Your task to perform on an android device: delete browsing data in the chrome app Image 0: 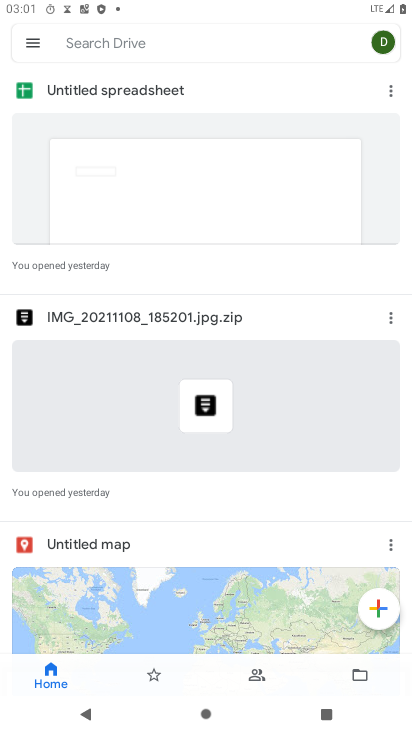
Step 0: press home button
Your task to perform on an android device: delete browsing data in the chrome app Image 1: 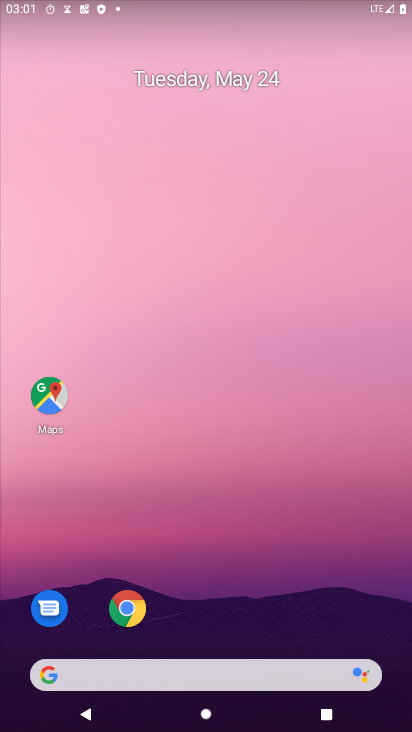
Step 1: drag from (210, 642) to (188, 300)
Your task to perform on an android device: delete browsing data in the chrome app Image 2: 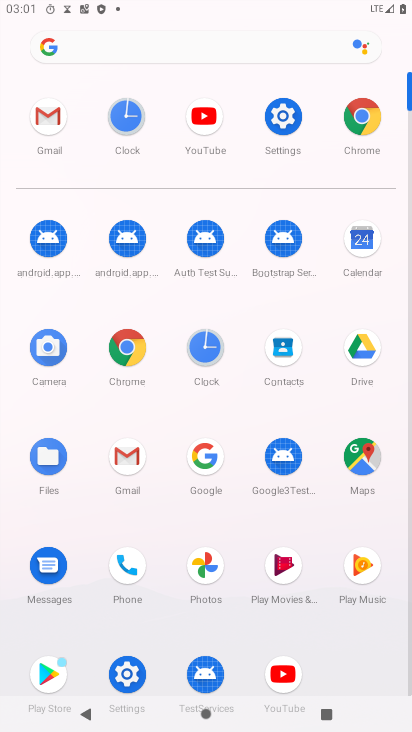
Step 2: click (356, 123)
Your task to perform on an android device: delete browsing data in the chrome app Image 3: 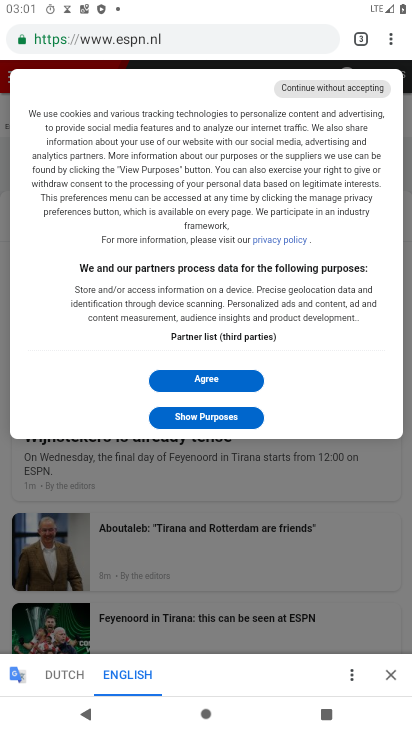
Step 3: click (386, 49)
Your task to perform on an android device: delete browsing data in the chrome app Image 4: 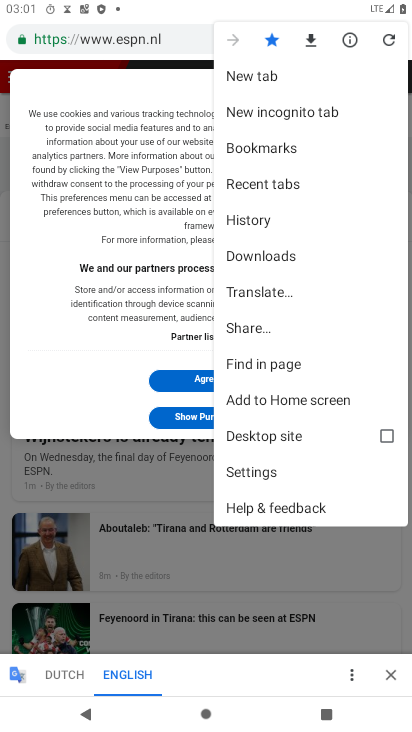
Step 4: click (263, 224)
Your task to perform on an android device: delete browsing data in the chrome app Image 5: 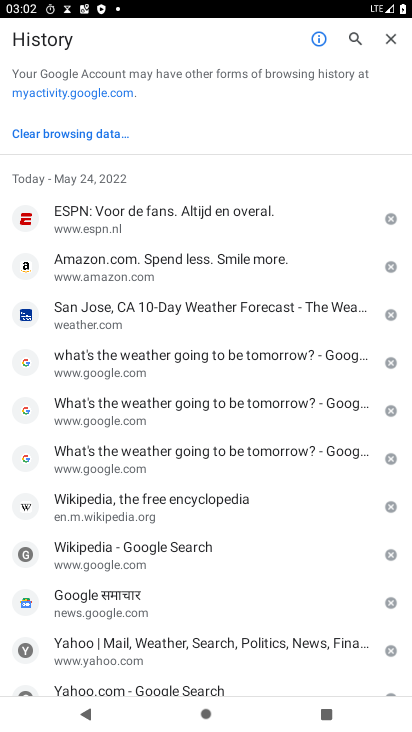
Step 5: click (116, 139)
Your task to perform on an android device: delete browsing data in the chrome app Image 6: 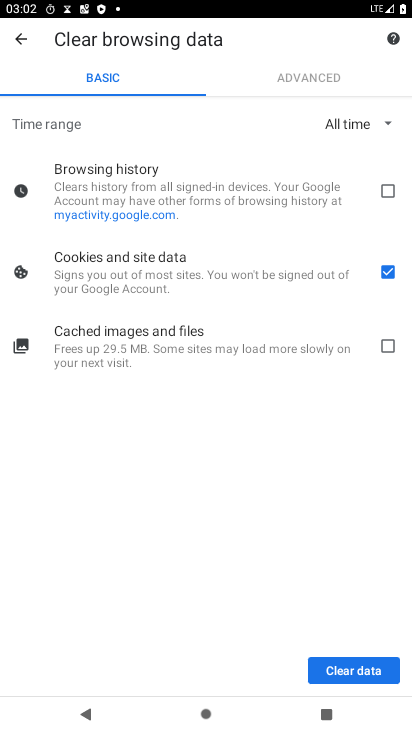
Step 6: click (385, 265)
Your task to perform on an android device: delete browsing data in the chrome app Image 7: 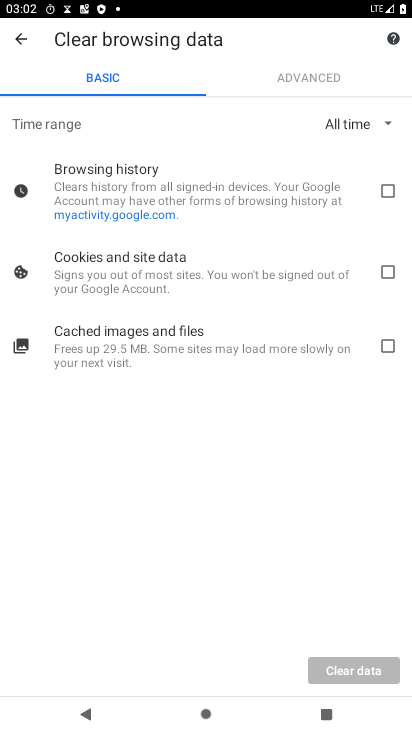
Step 7: click (389, 185)
Your task to perform on an android device: delete browsing data in the chrome app Image 8: 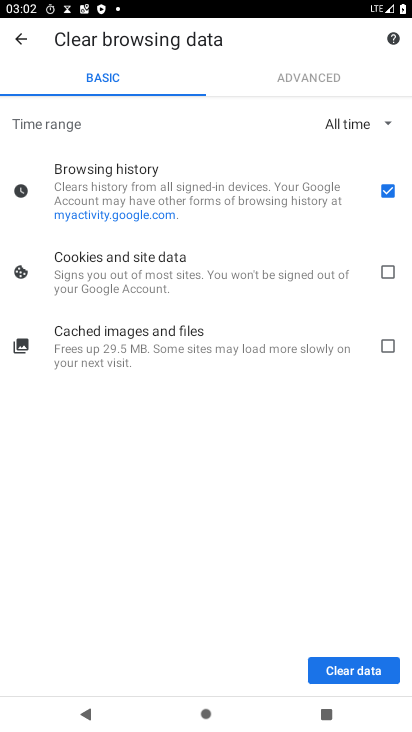
Step 8: click (368, 669)
Your task to perform on an android device: delete browsing data in the chrome app Image 9: 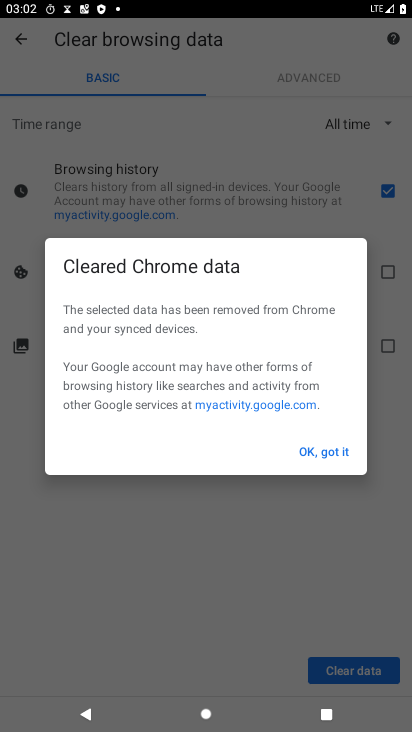
Step 9: click (321, 458)
Your task to perform on an android device: delete browsing data in the chrome app Image 10: 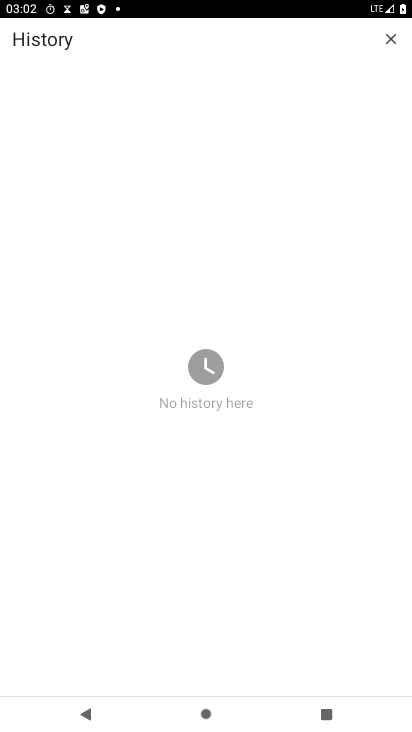
Step 10: task complete